Your task to perform on an android device: check storage Image 0: 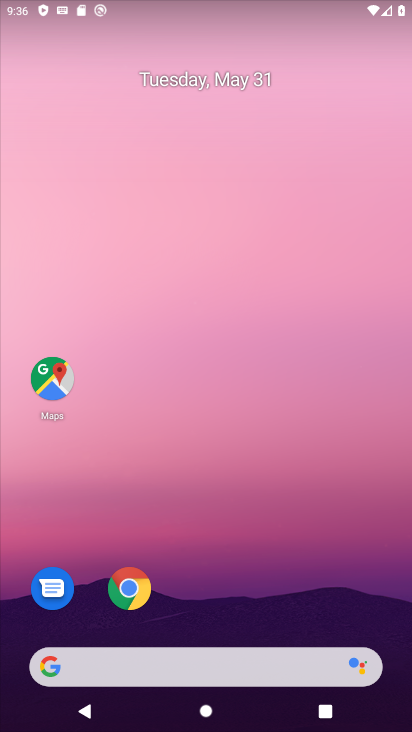
Step 0: drag from (239, 699) to (315, 4)
Your task to perform on an android device: check storage Image 1: 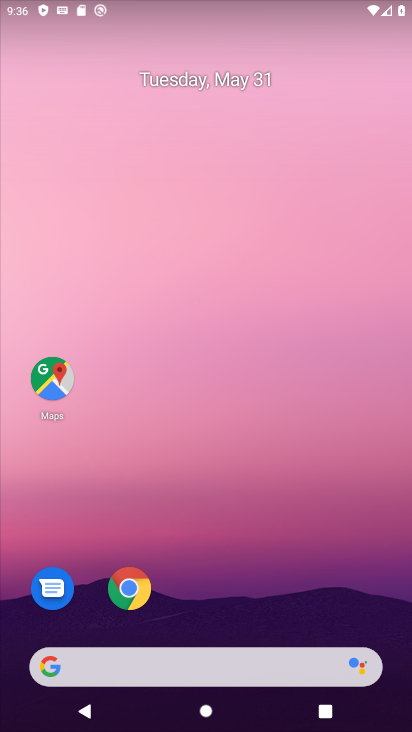
Step 1: drag from (235, 453) to (379, 17)
Your task to perform on an android device: check storage Image 2: 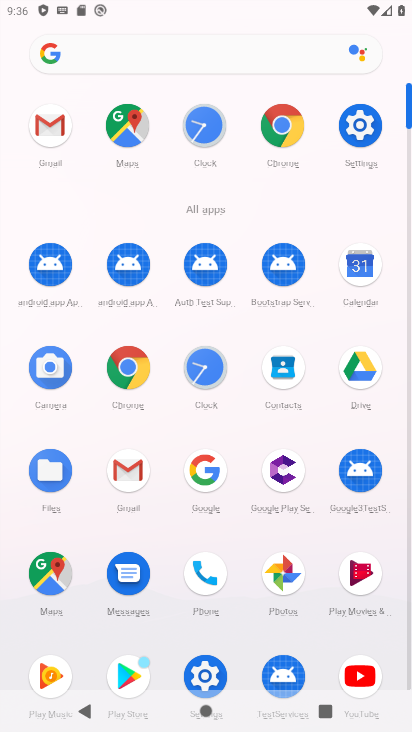
Step 2: click (371, 119)
Your task to perform on an android device: check storage Image 3: 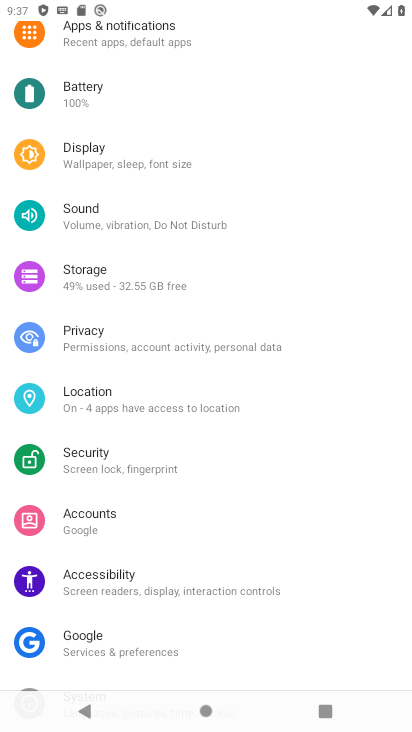
Step 3: click (168, 279)
Your task to perform on an android device: check storage Image 4: 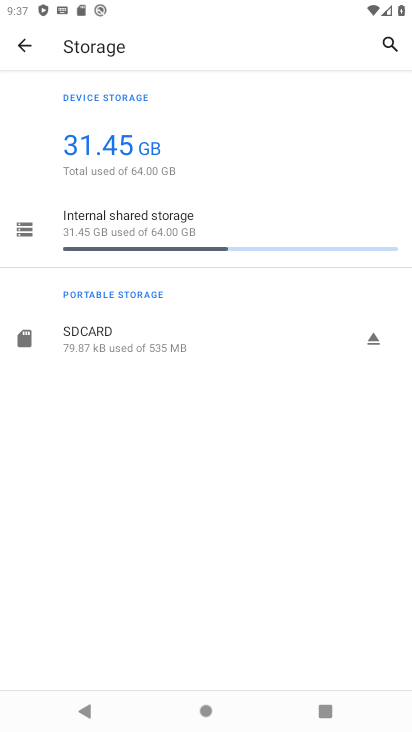
Step 4: task complete